Your task to perform on an android device: empty trash in google photos Image 0: 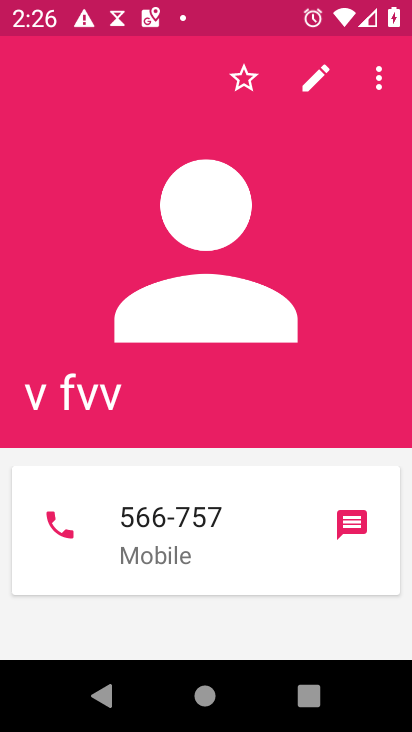
Step 0: press back button
Your task to perform on an android device: empty trash in google photos Image 1: 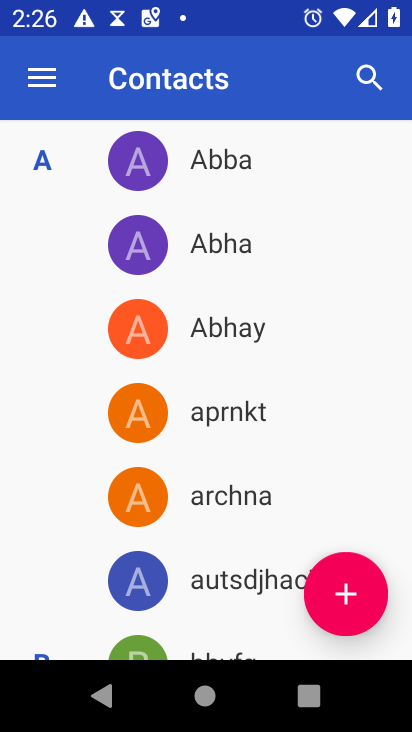
Step 1: press back button
Your task to perform on an android device: empty trash in google photos Image 2: 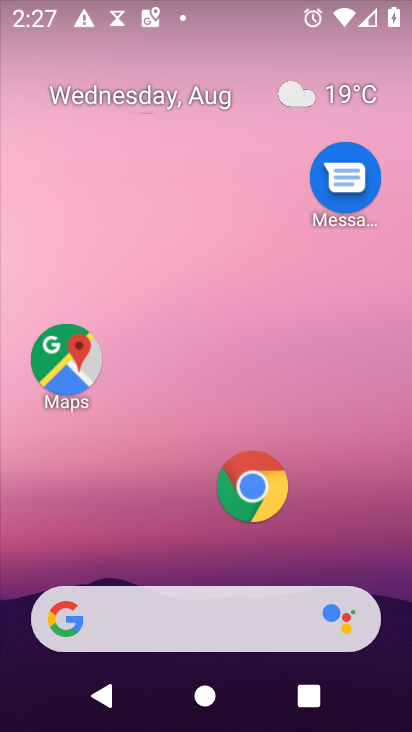
Step 2: drag from (148, 572) to (291, 24)
Your task to perform on an android device: empty trash in google photos Image 3: 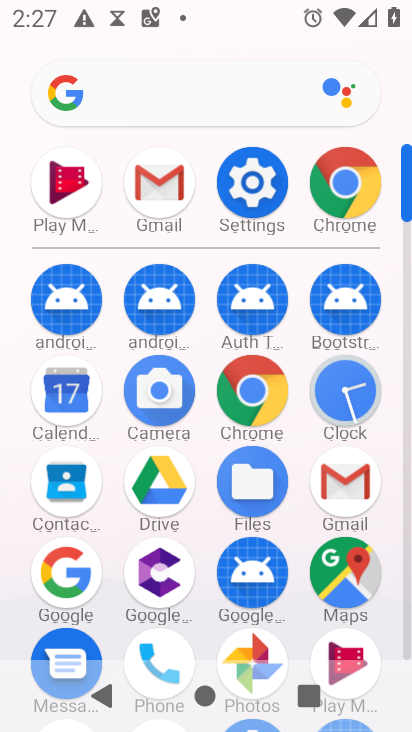
Step 3: click (250, 641)
Your task to perform on an android device: empty trash in google photos Image 4: 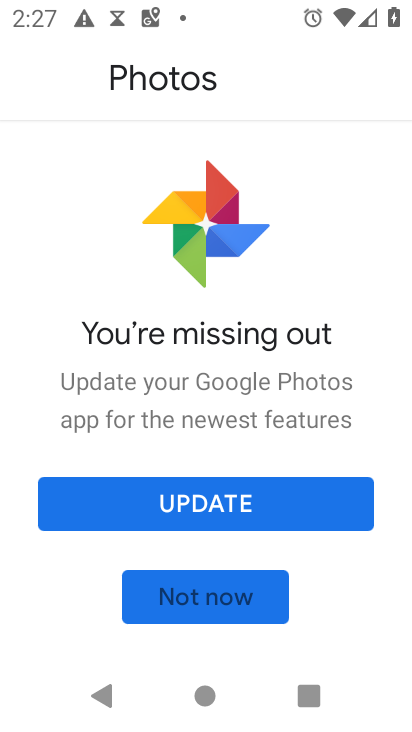
Step 4: click (173, 594)
Your task to perform on an android device: empty trash in google photos Image 5: 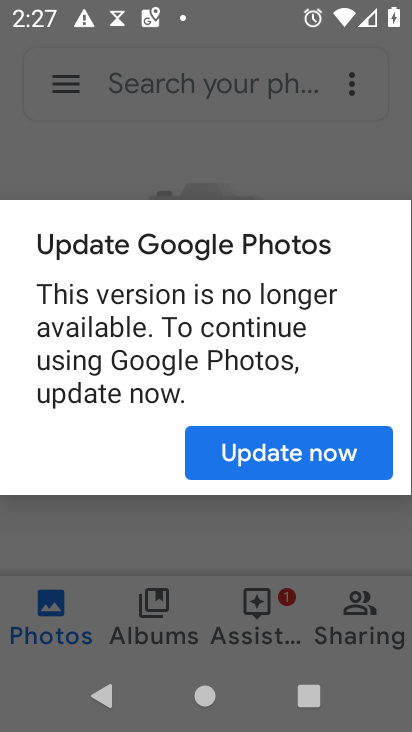
Step 5: click (281, 450)
Your task to perform on an android device: empty trash in google photos Image 6: 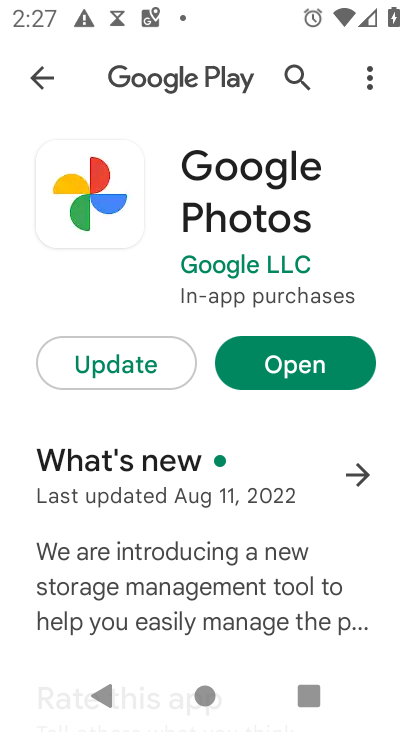
Step 6: click (306, 364)
Your task to perform on an android device: empty trash in google photos Image 7: 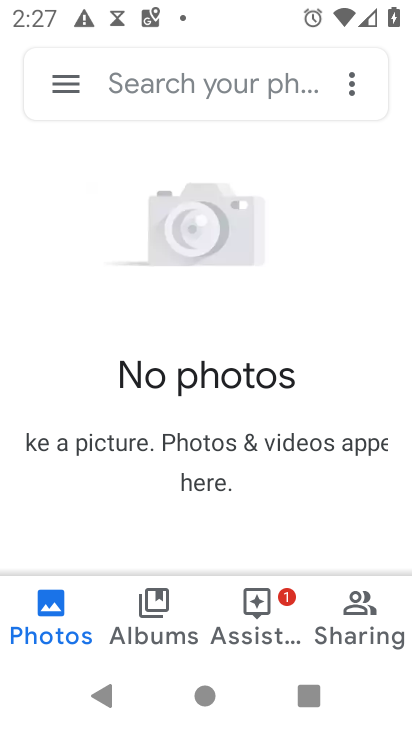
Step 7: click (52, 61)
Your task to perform on an android device: empty trash in google photos Image 8: 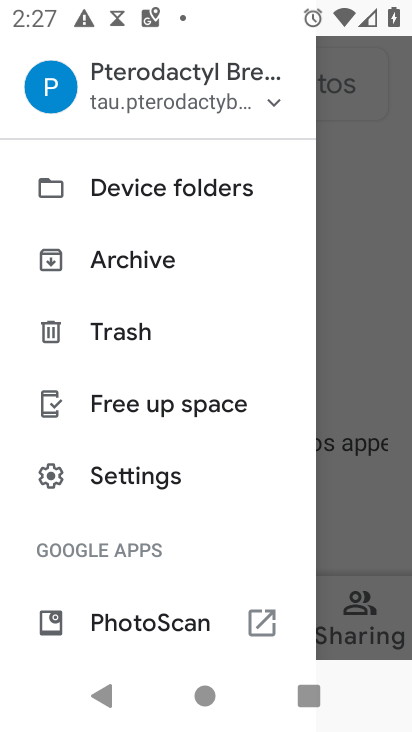
Step 8: click (137, 336)
Your task to perform on an android device: empty trash in google photos Image 9: 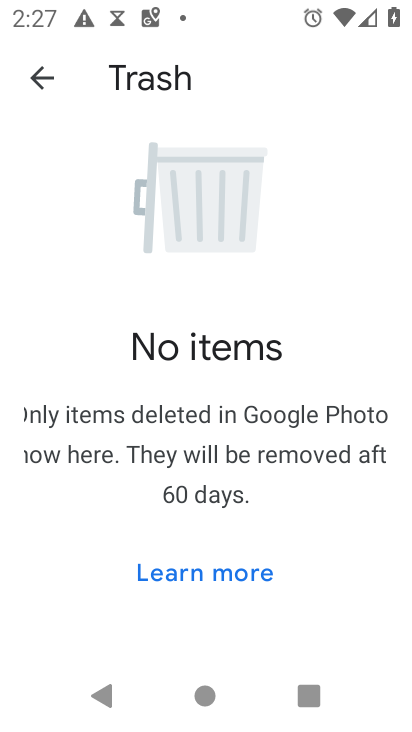
Step 9: task complete